Your task to perform on an android device: open chrome and create a bookmark for the current page Image 0: 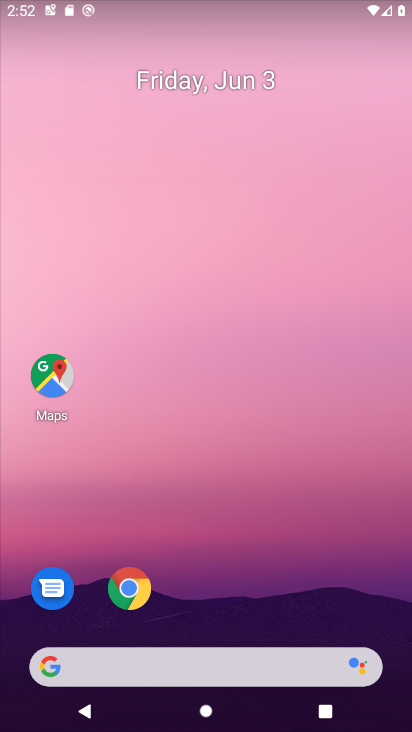
Step 0: drag from (231, 572) to (392, 275)
Your task to perform on an android device: open chrome and create a bookmark for the current page Image 1: 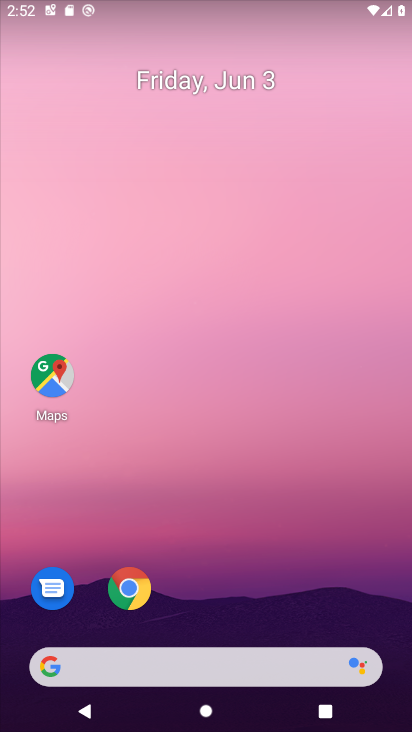
Step 1: drag from (193, 436) to (227, 172)
Your task to perform on an android device: open chrome and create a bookmark for the current page Image 2: 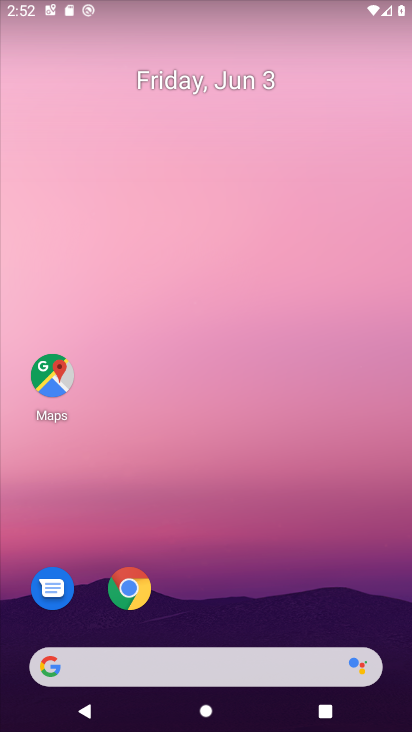
Step 2: click (135, 603)
Your task to perform on an android device: open chrome and create a bookmark for the current page Image 3: 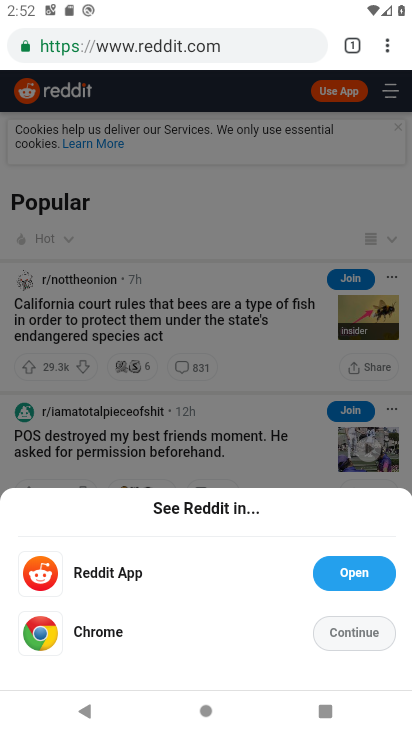
Step 3: click (376, 40)
Your task to perform on an android device: open chrome and create a bookmark for the current page Image 4: 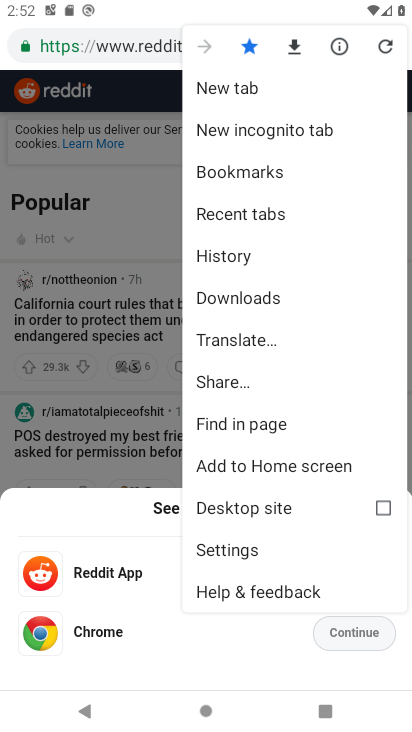
Step 4: task complete